Your task to perform on an android device: Open eBay Image 0: 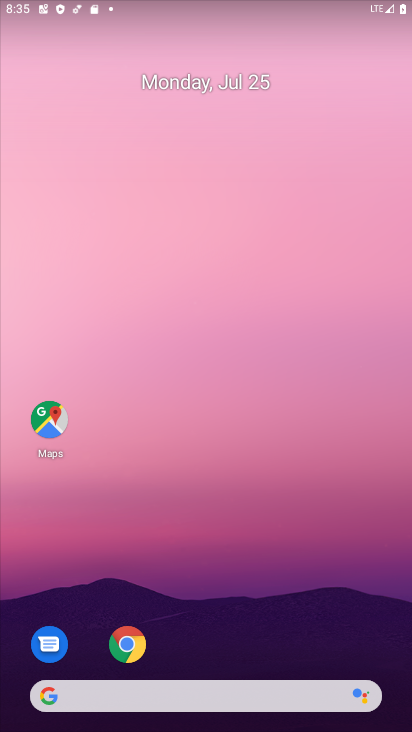
Step 0: drag from (222, 637) to (251, 160)
Your task to perform on an android device: Open eBay Image 1: 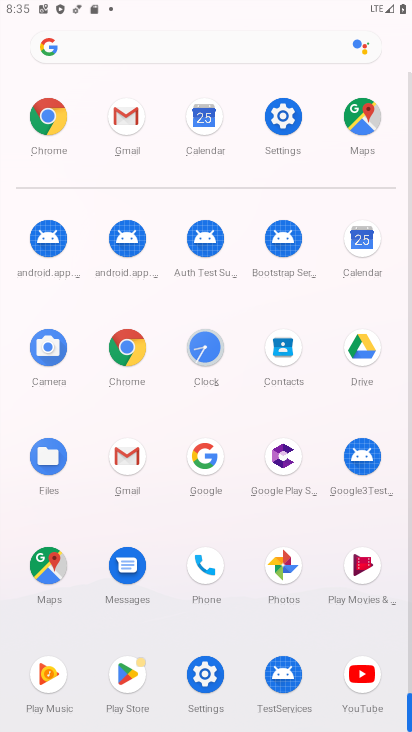
Step 1: click (139, 355)
Your task to perform on an android device: Open eBay Image 2: 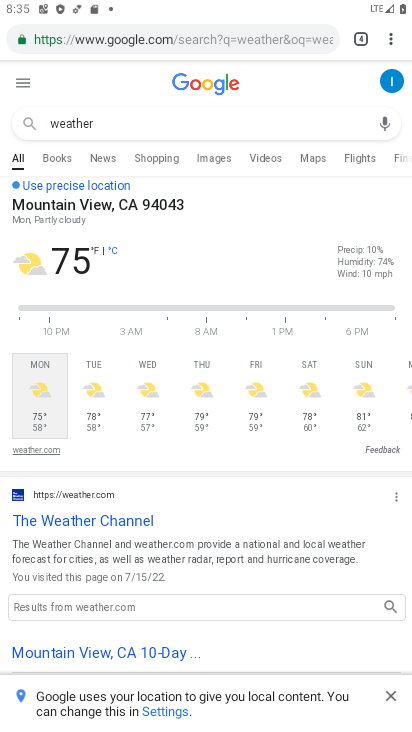
Step 2: click (367, 44)
Your task to perform on an android device: Open eBay Image 3: 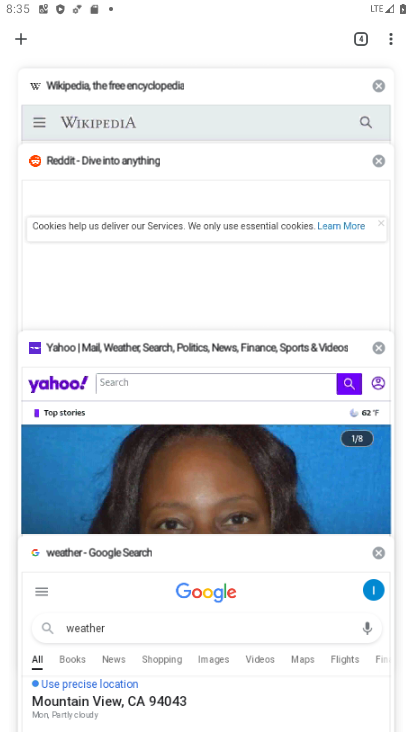
Step 3: click (23, 46)
Your task to perform on an android device: Open eBay Image 4: 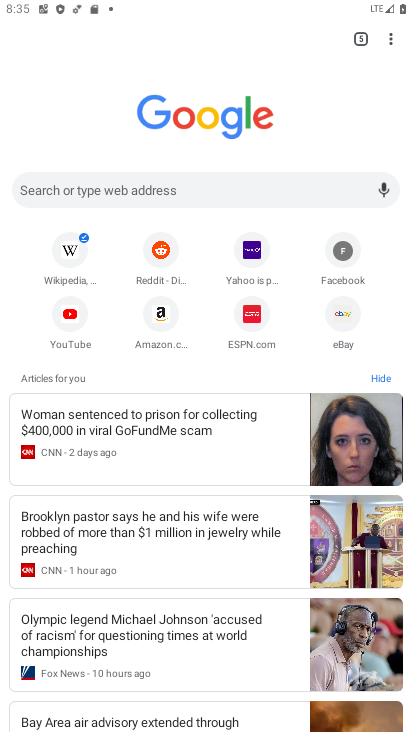
Step 4: click (333, 337)
Your task to perform on an android device: Open eBay Image 5: 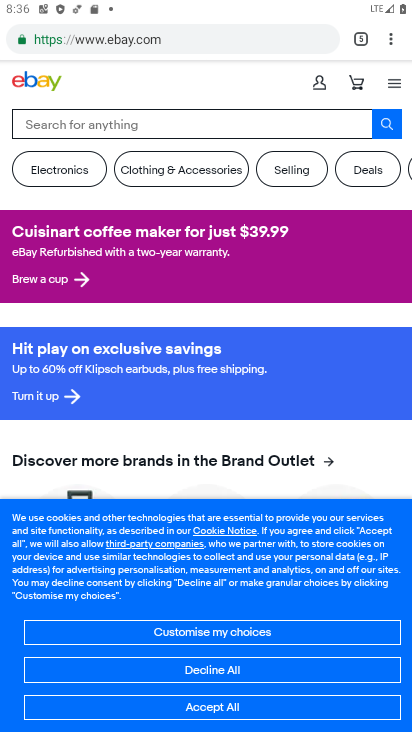
Step 5: task complete